Your task to perform on an android device: What's on my calendar today? Image 0: 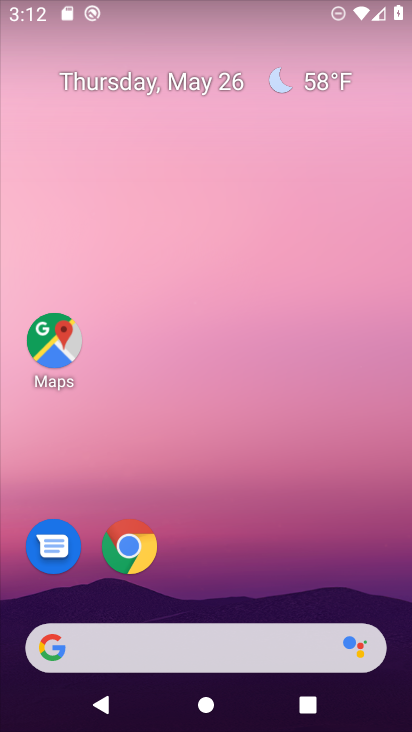
Step 0: press home button
Your task to perform on an android device: What's on my calendar today? Image 1: 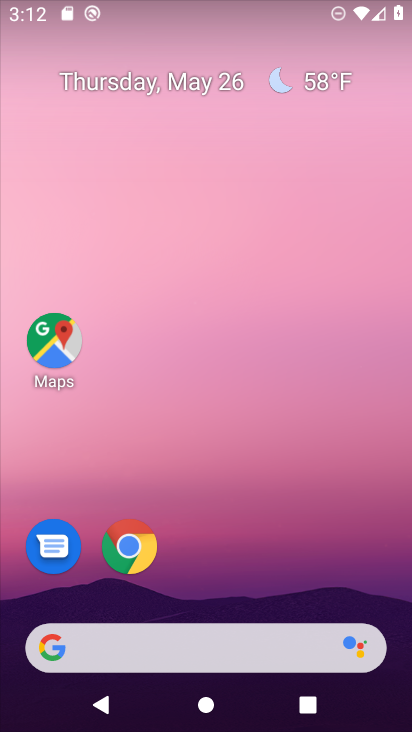
Step 1: drag from (219, 602) to (238, 0)
Your task to perform on an android device: What's on my calendar today? Image 2: 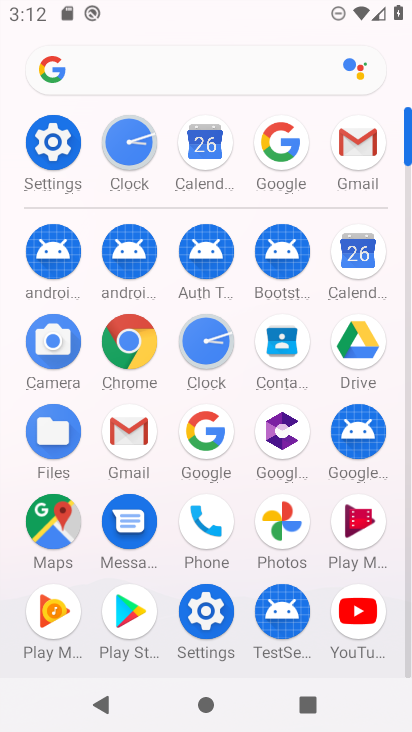
Step 2: click (361, 247)
Your task to perform on an android device: What's on my calendar today? Image 3: 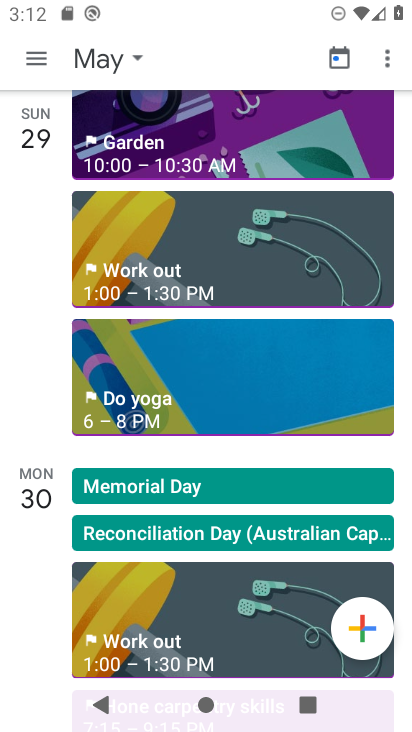
Step 3: drag from (47, 208) to (58, 622)
Your task to perform on an android device: What's on my calendar today? Image 4: 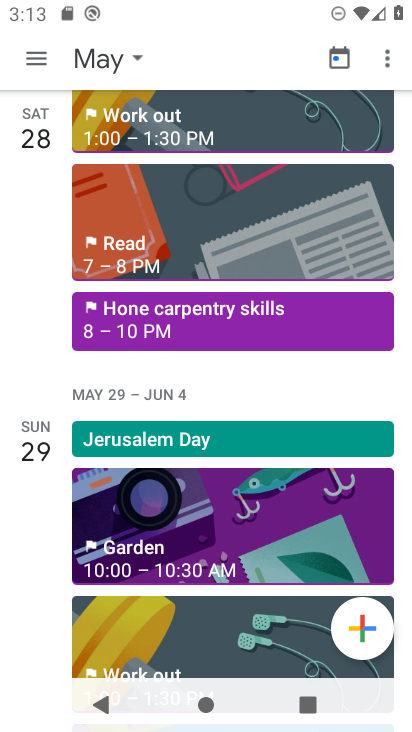
Step 4: drag from (33, 163) to (74, 579)
Your task to perform on an android device: What's on my calendar today? Image 5: 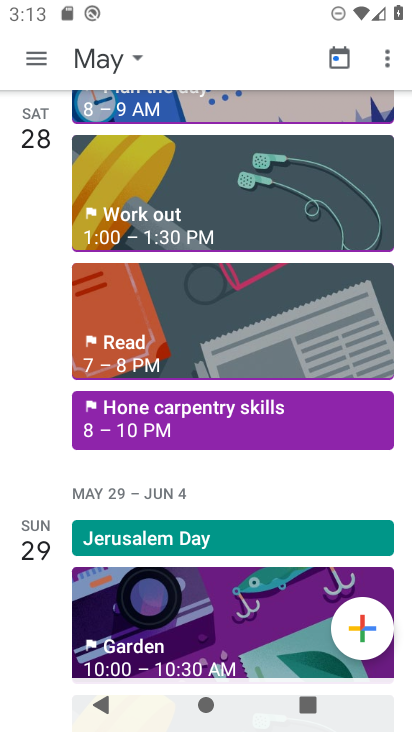
Step 5: drag from (47, 142) to (57, 492)
Your task to perform on an android device: What's on my calendar today? Image 6: 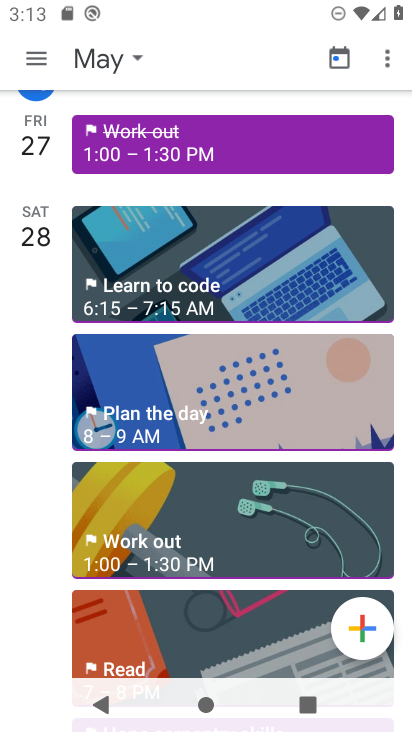
Step 6: drag from (37, 267) to (48, 515)
Your task to perform on an android device: What's on my calendar today? Image 7: 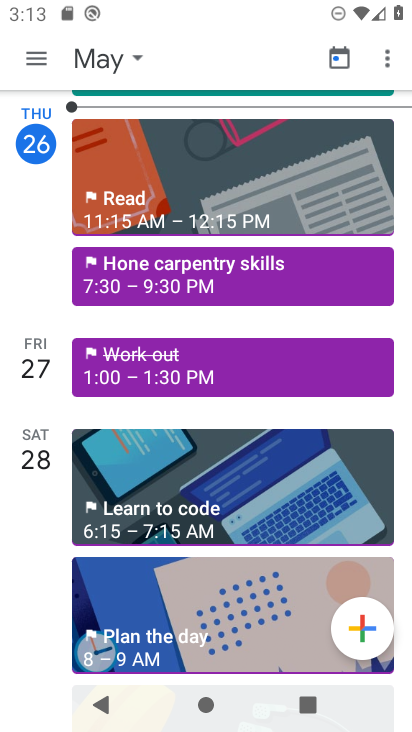
Step 7: click (43, 142)
Your task to perform on an android device: What's on my calendar today? Image 8: 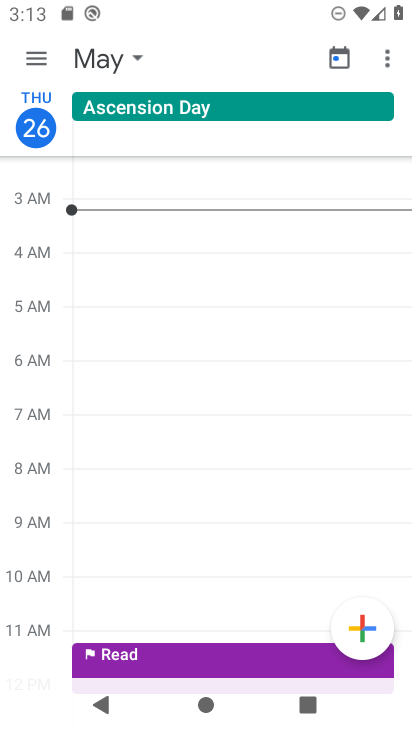
Step 8: task complete